Your task to perform on an android device: Clear the shopping cart on newegg.com. Search for macbook pro 13 inch on newegg.com, select the first entry, add it to the cart, then select checkout. Image 0: 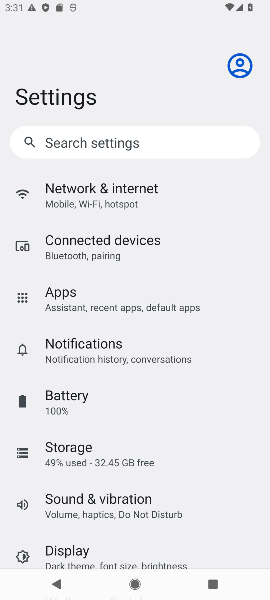
Step 0: press home button
Your task to perform on an android device: Clear the shopping cart on newegg.com. Search for macbook pro 13 inch on newegg.com, select the first entry, add it to the cart, then select checkout. Image 1: 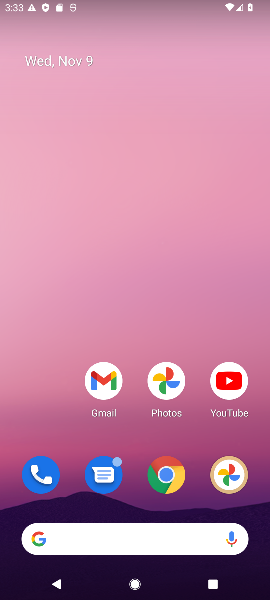
Step 1: drag from (91, 537) to (109, 93)
Your task to perform on an android device: Clear the shopping cart on newegg.com. Search for macbook pro 13 inch on newegg.com, select the first entry, add it to the cart, then select checkout. Image 2: 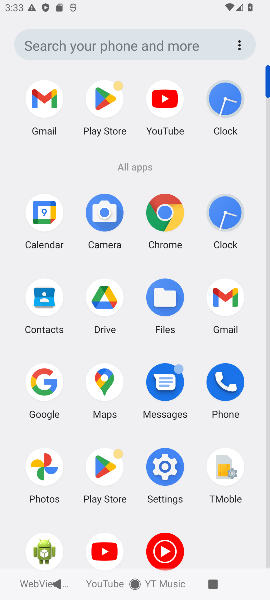
Step 2: click (165, 206)
Your task to perform on an android device: Clear the shopping cart on newegg.com. Search for macbook pro 13 inch on newegg.com, select the first entry, add it to the cart, then select checkout. Image 3: 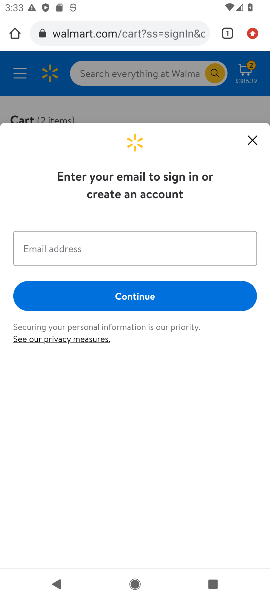
Step 3: click (174, 24)
Your task to perform on an android device: Clear the shopping cart on newegg.com. Search for macbook pro 13 inch on newegg.com, select the first entry, add it to the cart, then select checkout. Image 4: 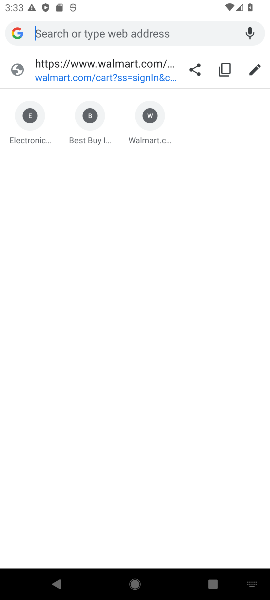
Step 4: type "newegg.com"
Your task to perform on an android device: Clear the shopping cart on newegg.com. Search for macbook pro 13 inch on newegg.com, select the first entry, add it to the cart, then select checkout. Image 5: 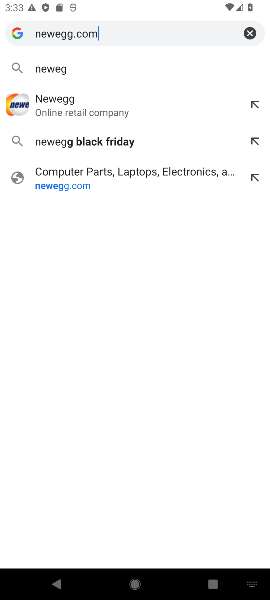
Step 5: press enter
Your task to perform on an android device: Clear the shopping cart on newegg.com. Search for macbook pro 13 inch on newegg.com, select the first entry, add it to the cart, then select checkout. Image 6: 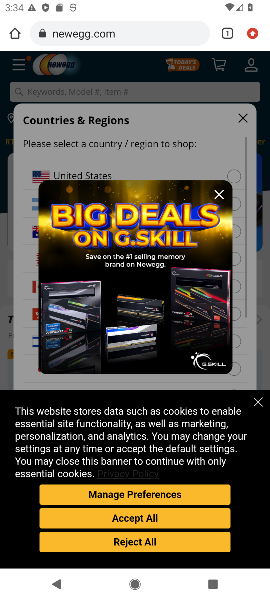
Step 6: click (125, 520)
Your task to perform on an android device: Clear the shopping cart on newegg.com. Search for macbook pro 13 inch on newegg.com, select the first entry, add it to the cart, then select checkout. Image 7: 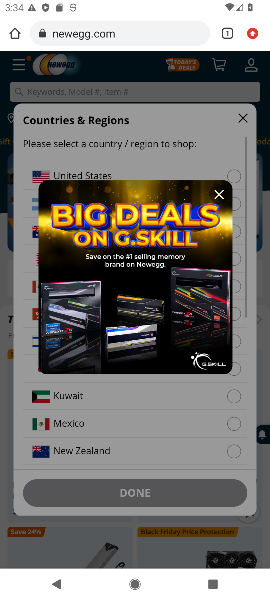
Step 7: click (166, 392)
Your task to perform on an android device: Clear the shopping cart on newegg.com. Search for macbook pro 13 inch on newegg.com, select the first entry, add it to the cart, then select checkout. Image 8: 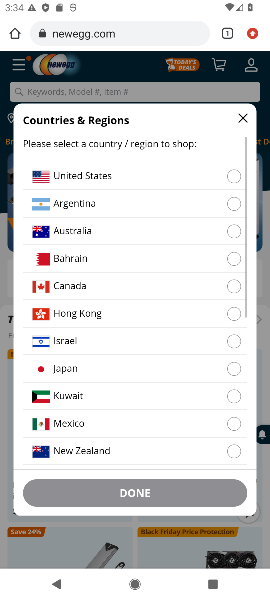
Step 8: click (232, 400)
Your task to perform on an android device: Clear the shopping cart on newegg.com. Search for macbook pro 13 inch on newegg.com, select the first entry, add it to the cart, then select checkout. Image 9: 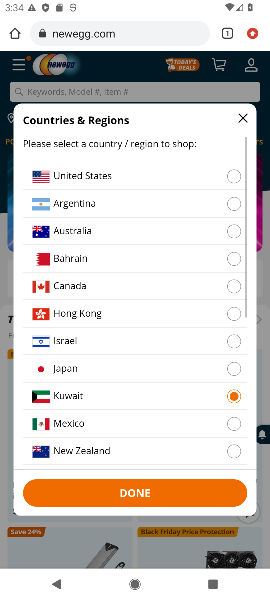
Step 9: click (237, 176)
Your task to perform on an android device: Clear the shopping cart on newegg.com. Search for macbook pro 13 inch on newegg.com, select the first entry, add it to the cart, then select checkout. Image 10: 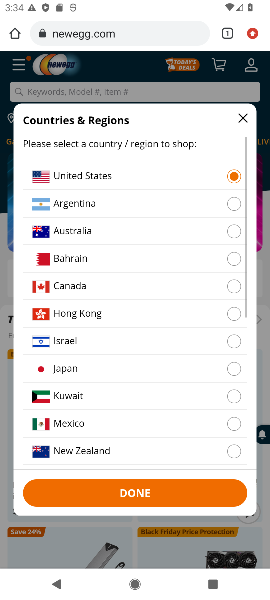
Step 10: click (119, 488)
Your task to perform on an android device: Clear the shopping cart on newegg.com. Search for macbook pro 13 inch on newegg.com, select the first entry, add it to the cart, then select checkout. Image 11: 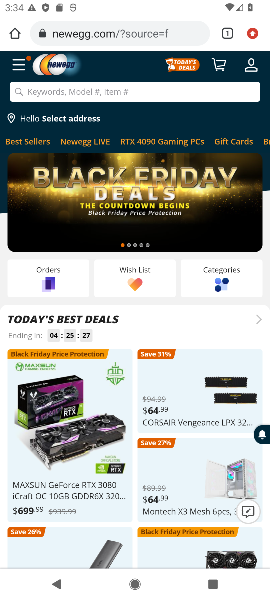
Step 11: click (74, 94)
Your task to perform on an android device: Clear the shopping cart on newegg.com. Search for macbook pro 13 inch on newegg.com, select the first entry, add it to the cart, then select checkout. Image 12: 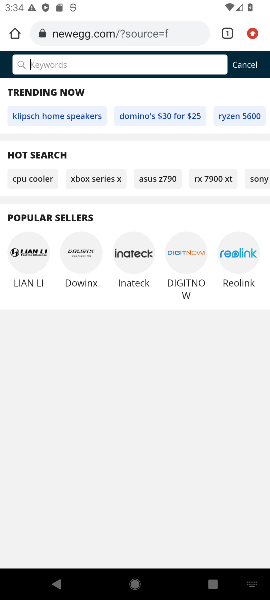
Step 12: type "macbook pro 13 inch"
Your task to perform on an android device: Clear the shopping cart on newegg.com. Search for macbook pro 13 inch on newegg.com, select the first entry, add it to the cart, then select checkout. Image 13: 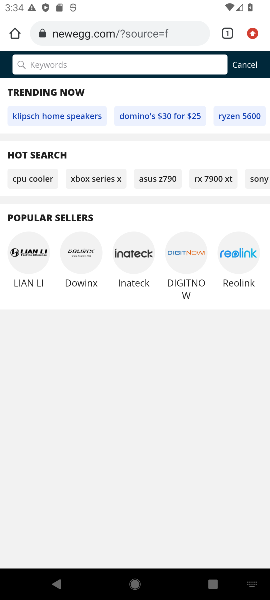
Step 13: press enter
Your task to perform on an android device: Clear the shopping cart on newegg.com. Search for macbook pro 13 inch on newegg.com, select the first entry, add it to the cart, then select checkout. Image 14: 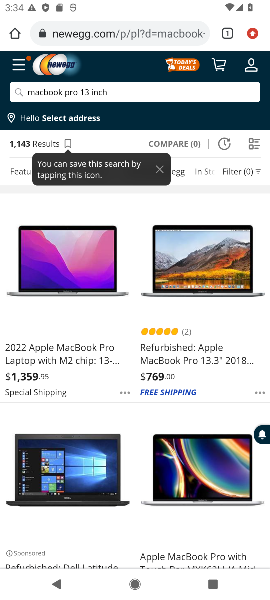
Step 14: click (54, 266)
Your task to perform on an android device: Clear the shopping cart on newegg.com. Search for macbook pro 13 inch on newegg.com, select the first entry, add it to the cart, then select checkout. Image 15: 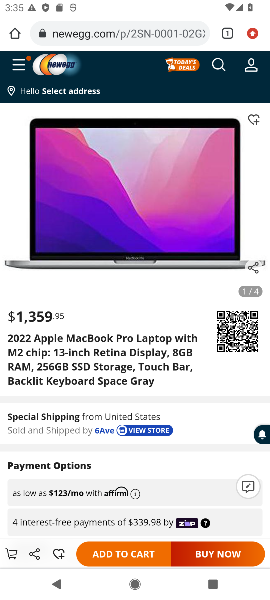
Step 15: click (131, 552)
Your task to perform on an android device: Clear the shopping cart on newegg.com. Search for macbook pro 13 inch on newegg.com, select the first entry, add it to the cart, then select checkout. Image 16: 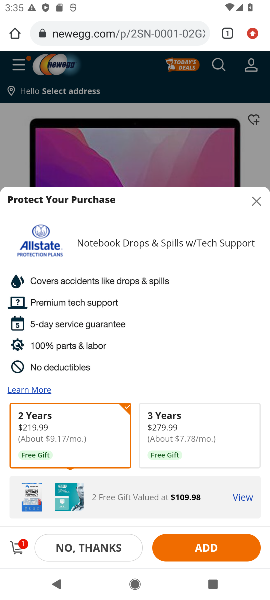
Step 16: click (256, 201)
Your task to perform on an android device: Clear the shopping cart on newegg.com. Search for macbook pro 13 inch on newegg.com, select the first entry, add it to the cart, then select checkout. Image 17: 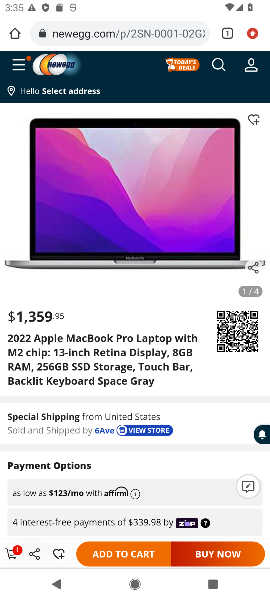
Step 17: click (13, 553)
Your task to perform on an android device: Clear the shopping cart on newegg.com. Search for macbook pro 13 inch on newegg.com, select the first entry, add it to the cart, then select checkout. Image 18: 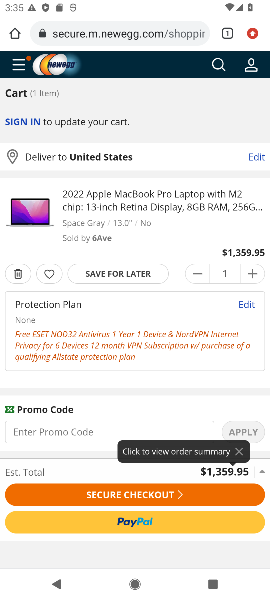
Step 18: click (120, 491)
Your task to perform on an android device: Clear the shopping cart on newegg.com. Search for macbook pro 13 inch on newegg.com, select the first entry, add it to the cart, then select checkout. Image 19: 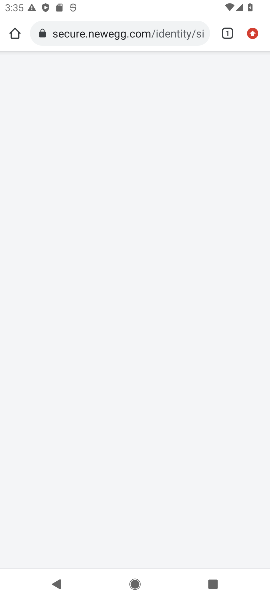
Step 19: click (131, 524)
Your task to perform on an android device: Clear the shopping cart on newegg.com. Search for macbook pro 13 inch on newegg.com, select the first entry, add it to the cart, then select checkout. Image 20: 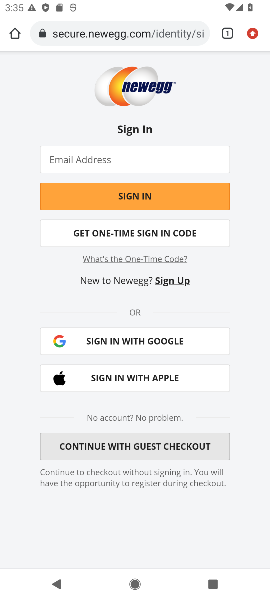
Step 20: task complete